Your task to perform on an android device: turn on the 12-hour format for clock Image 0: 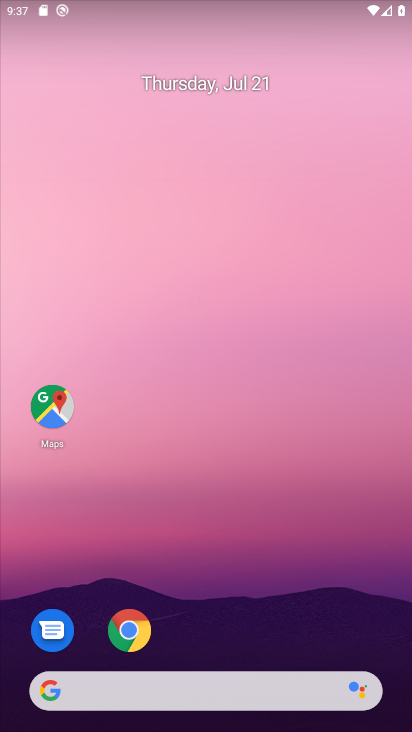
Step 0: drag from (309, 600) to (303, 101)
Your task to perform on an android device: turn on the 12-hour format for clock Image 1: 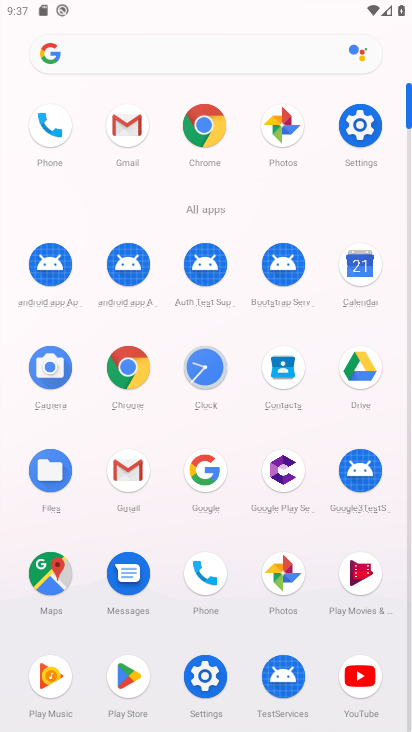
Step 1: click (190, 373)
Your task to perform on an android device: turn on the 12-hour format for clock Image 2: 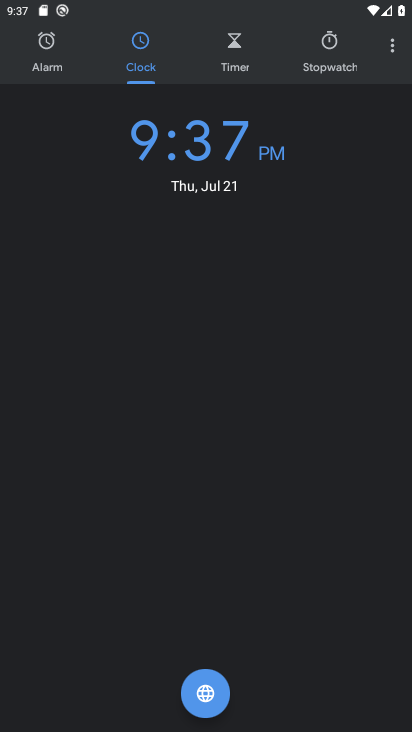
Step 2: click (398, 58)
Your task to perform on an android device: turn on the 12-hour format for clock Image 3: 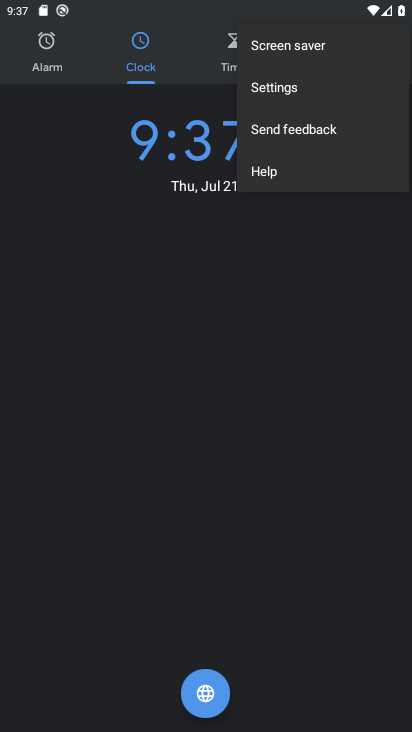
Step 3: click (309, 90)
Your task to perform on an android device: turn on the 12-hour format for clock Image 4: 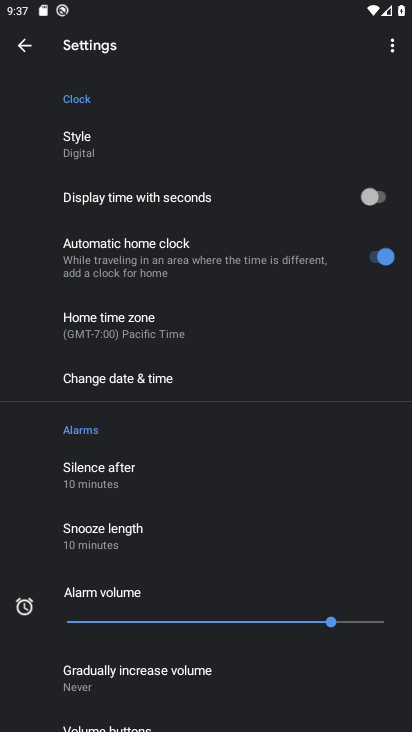
Step 4: click (180, 374)
Your task to perform on an android device: turn on the 12-hour format for clock Image 5: 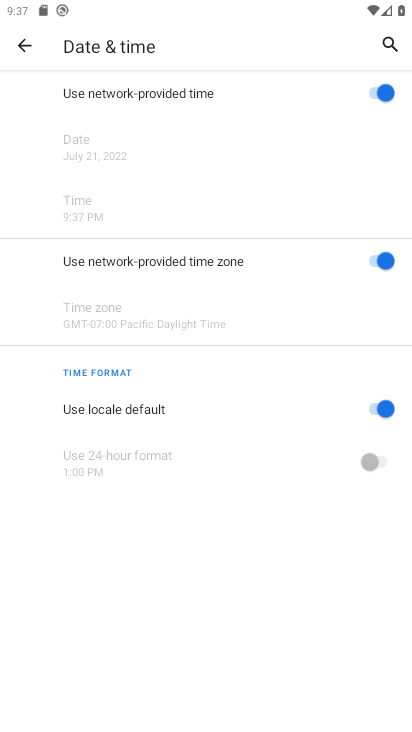
Step 5: task complete